Your task to perform on an android device: empty trash in google photos Image 0: 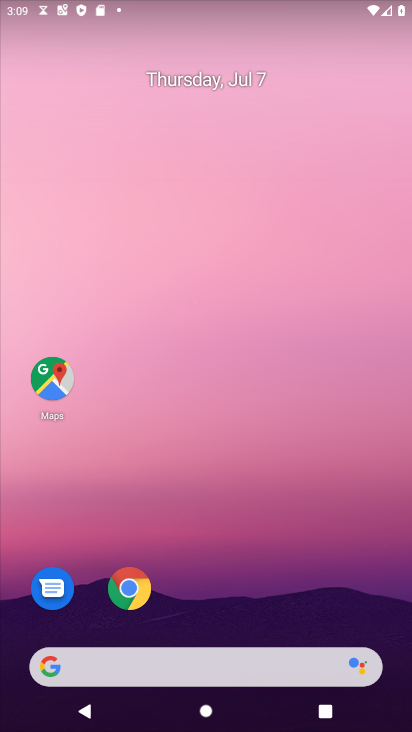
Step 0: drag from (256, 599) to (234, 18)
Your task to perform on an android device: empty trash in google photos Image 1: 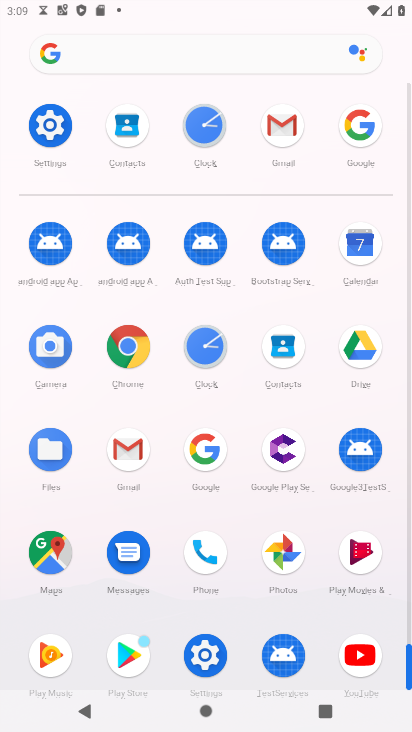
Step 1: click (284, 549)
Your task to perform on an android device: empty trash in google photos Image 2: 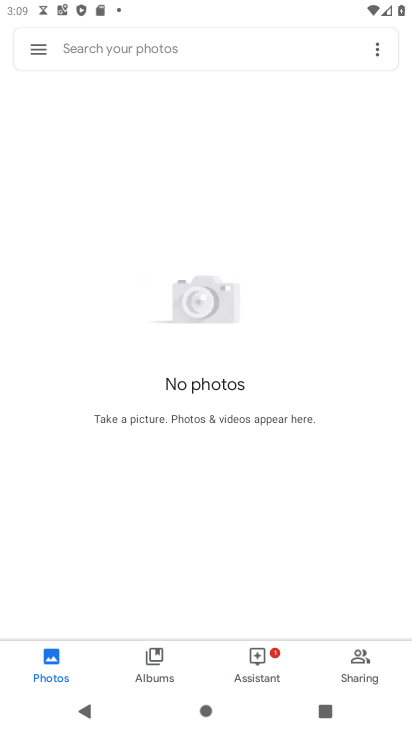
Step 2: click (38, 51)
Your task to perform on an android device: empty trash in google photos Image 3: 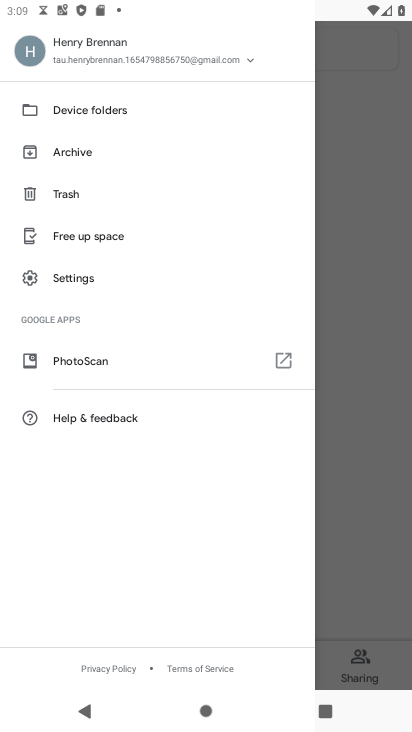
Step 3: click (58, 186)
Your task to perform on an android device: empty trash in google photos Image 4: 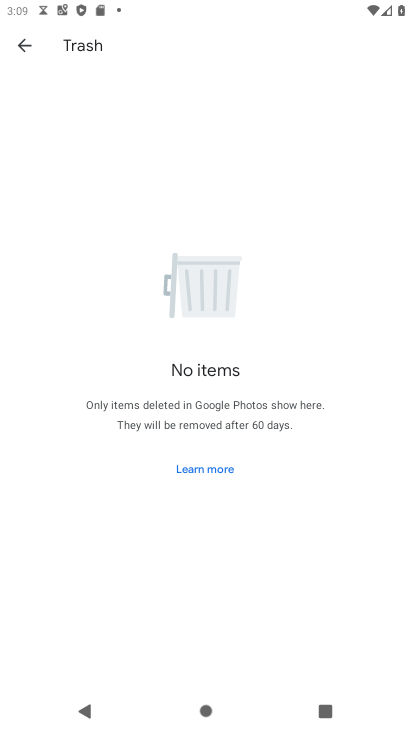
Step 4: task complete